Your task to perform on an android device: Open privacy settings Image 0: 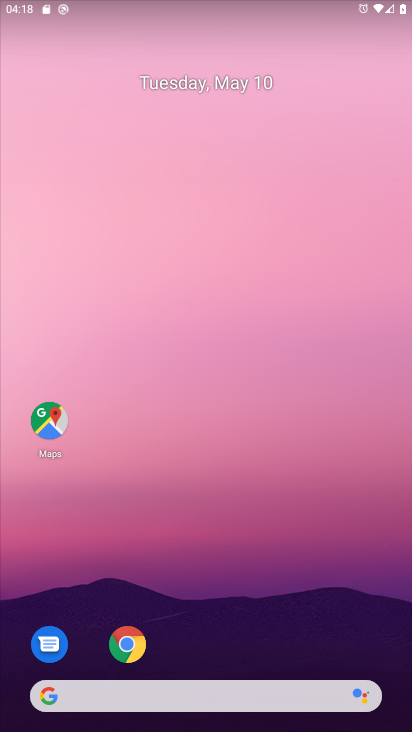
Step 0: press home button
Your task to perform on an android device: Open privacy settings Image 1: 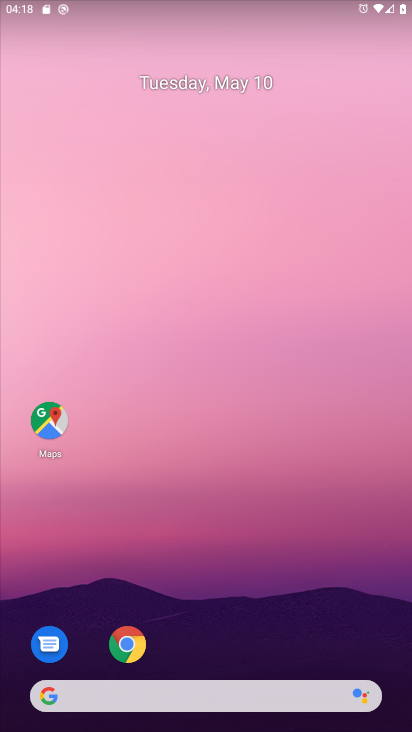
Step 1: drag from (211, 663) to (234, 286)
Your task to perform on an android device: Open privacy settings Image 2: 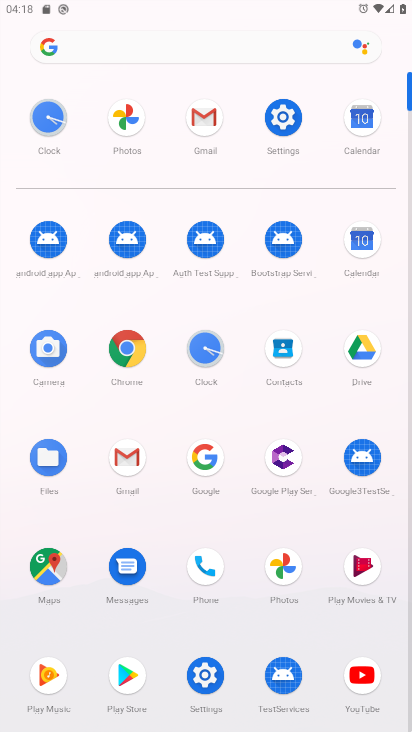
Step 2: click (278, 103)
Your task to perform on an android device: Open privacy settings Image 3: 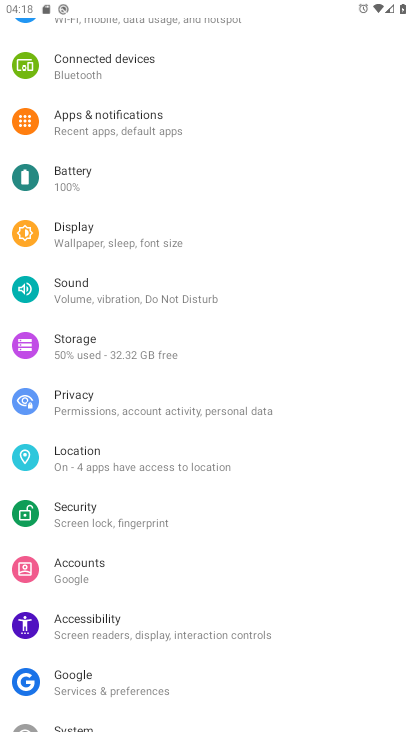
Step 3: click (108, 392)
Your task to perform on an android device: Open privacy settings Image 4: 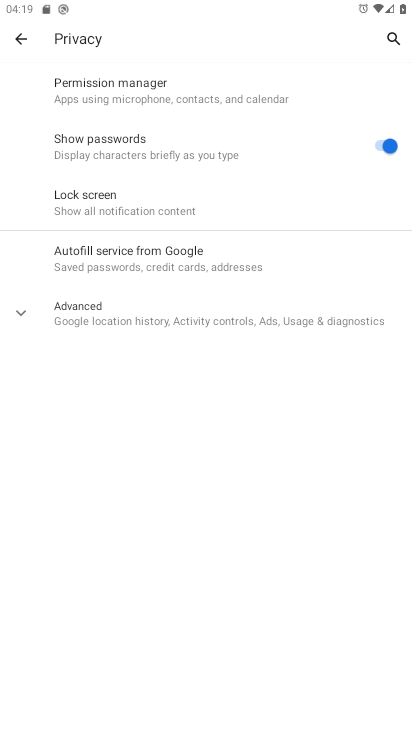
Step 4: click (20, 312)
Your task to perform on an android device: Open privacy settings Image 5: 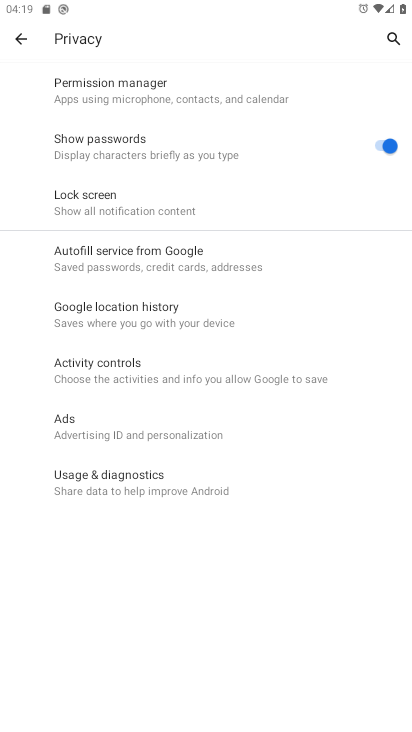
Step 5: task complete